Your task to perform on an android device: Go to eBay Image 0: 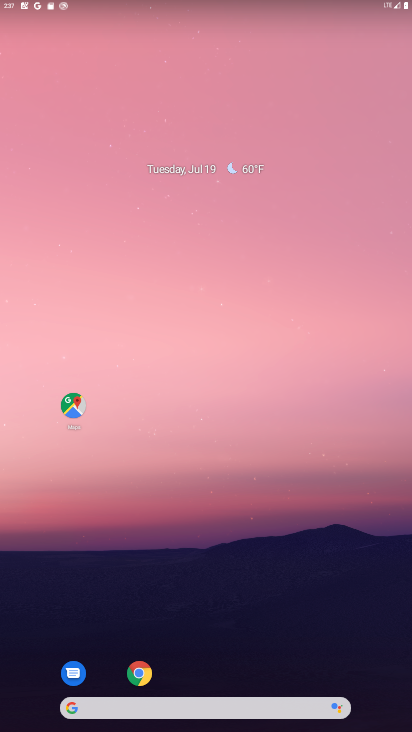
Step 0: click (296, 707)
Your task to perform on an android device: Go to eBay Image 1: 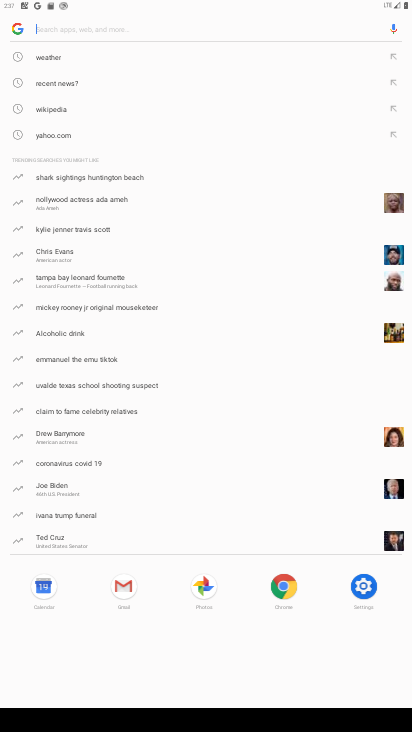
Step 1: type "ebay"
Your task to perform on an android device: Go to eBay Image 2: 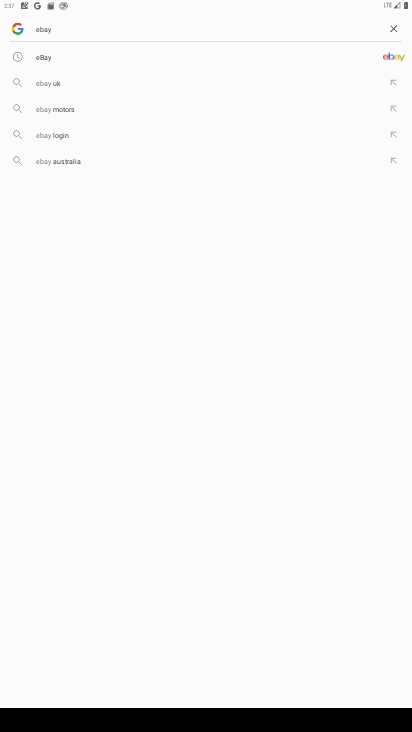
Step 2: click (394, 52)
Your task to perform on an android device: Go to eBay Image 3: 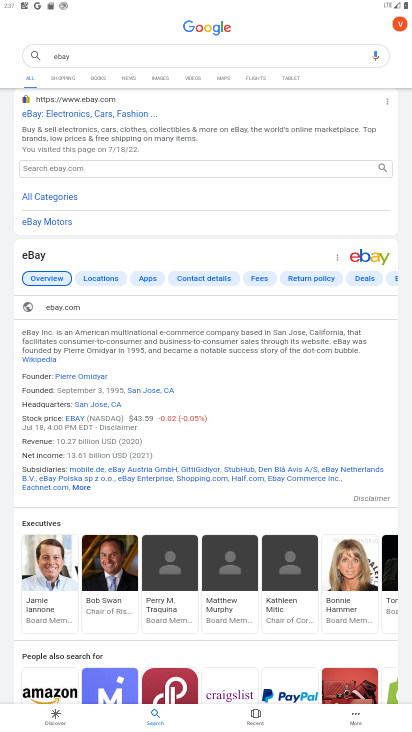
Step 3: click (101, 106)
Your task to perform on an android device: Go to eBay Image 4: 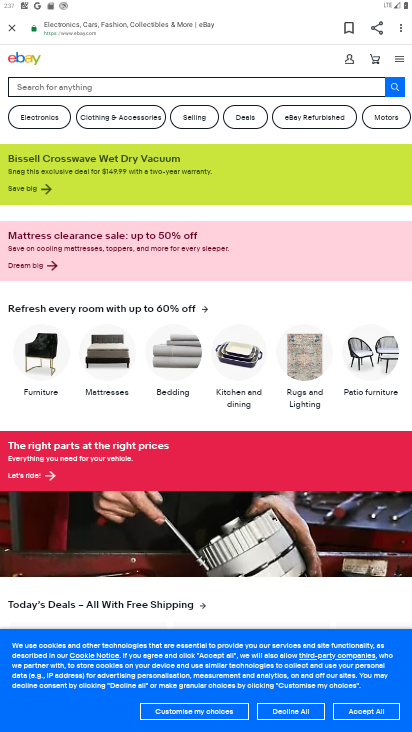
Step 4: task complete